Your task to perform on an android device: turn off location Image 0: 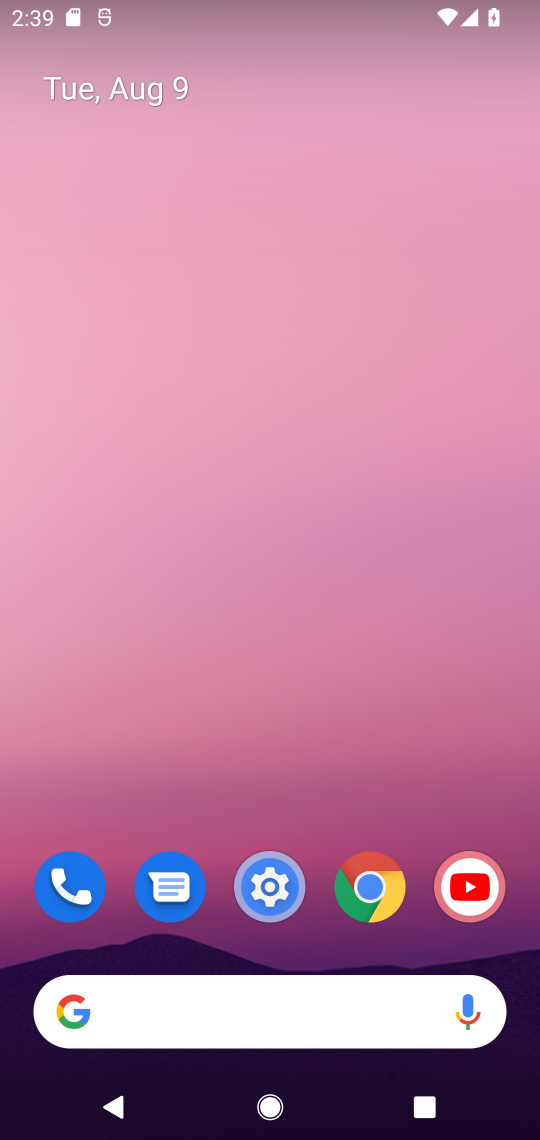
Step 0: drag from (282, 972) to (356, 138)
Your task to perform on an android device: turn off location Image 1: 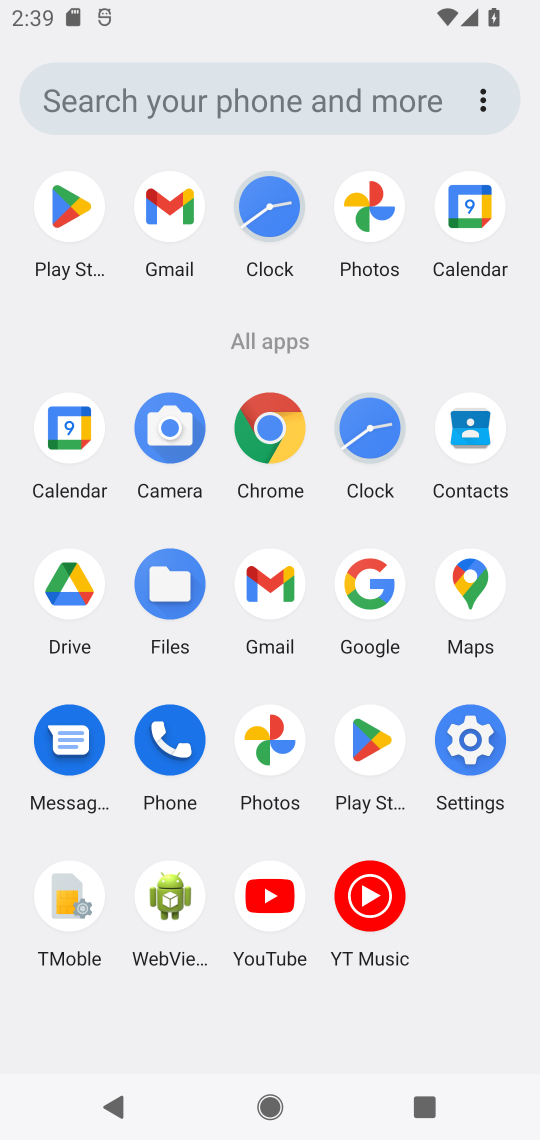
Step 1: click (477, 760)
Your task to perform on an android device: turn off location Image 2: 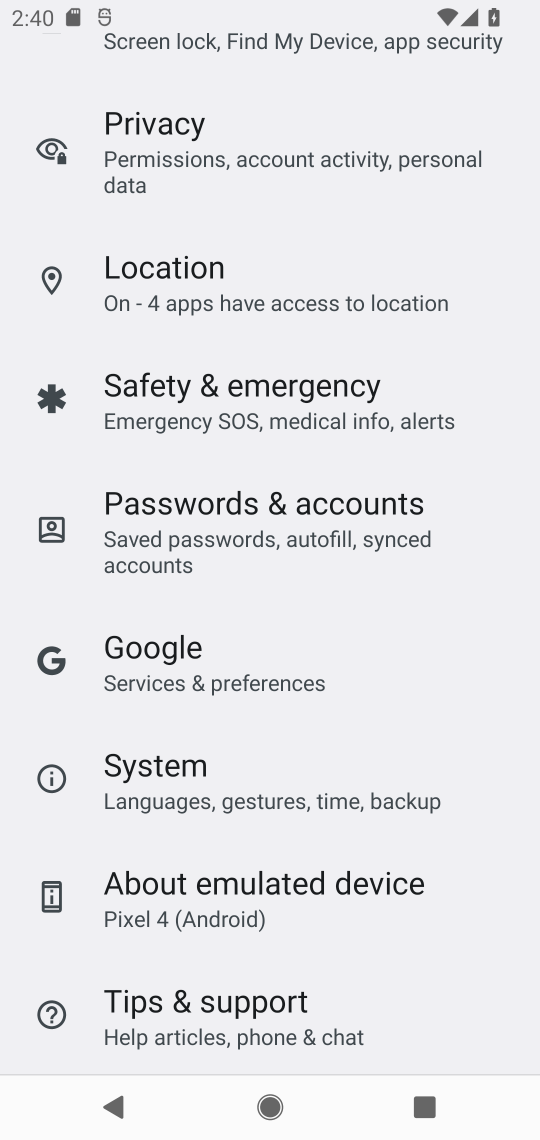
Step 2: drag from (283, 250) to (283, 553)
Your task to perform on an android device: turn off location Image 3: 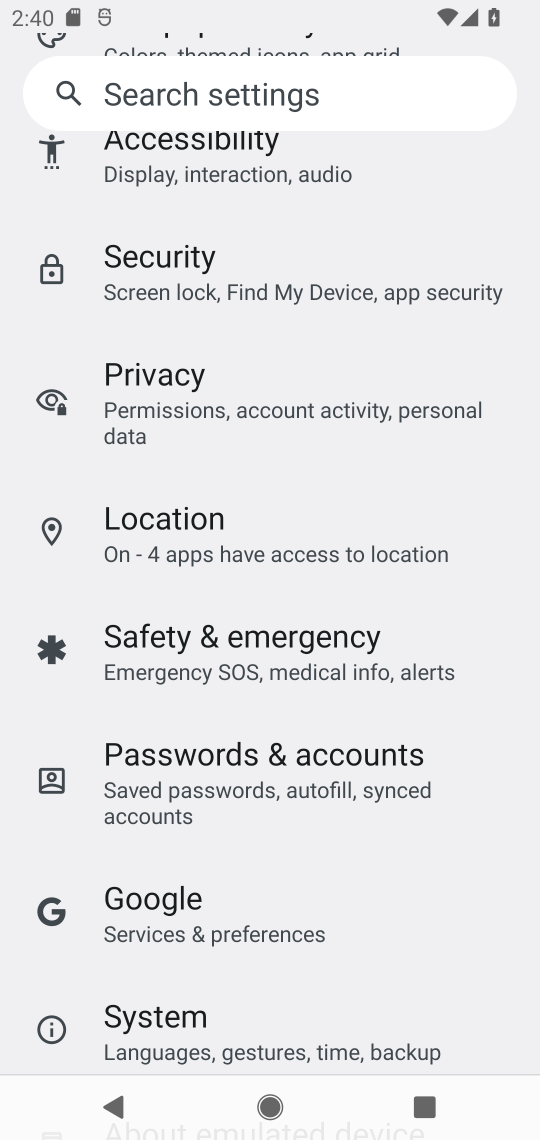
Step 3: click (270, 547)
Your task to perform on an android device: turn off location Image 4: 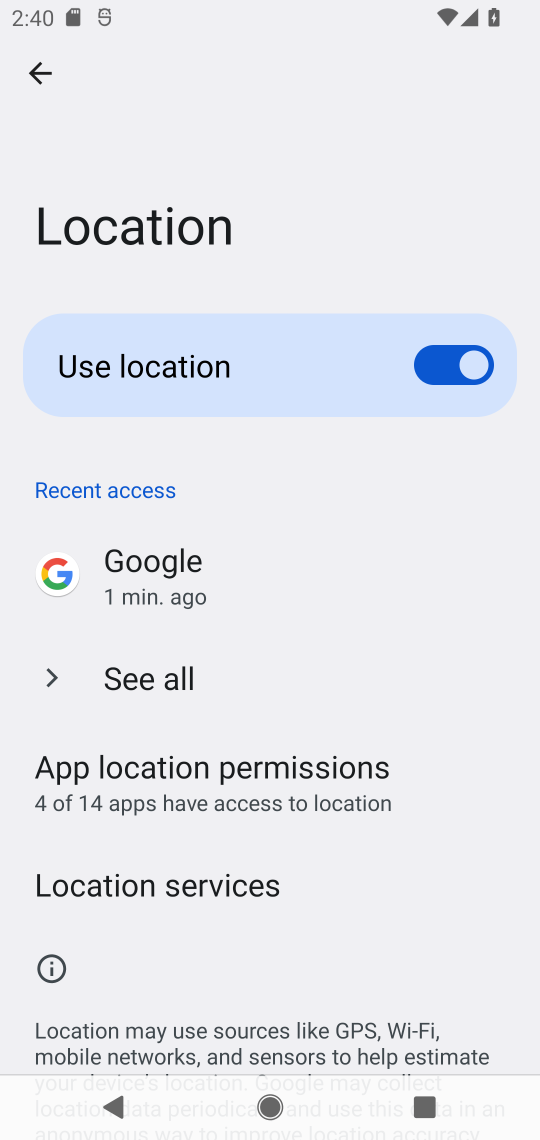
Step 4: click (429, 360)
Your task to perform on an android device: turn off location Image 5: 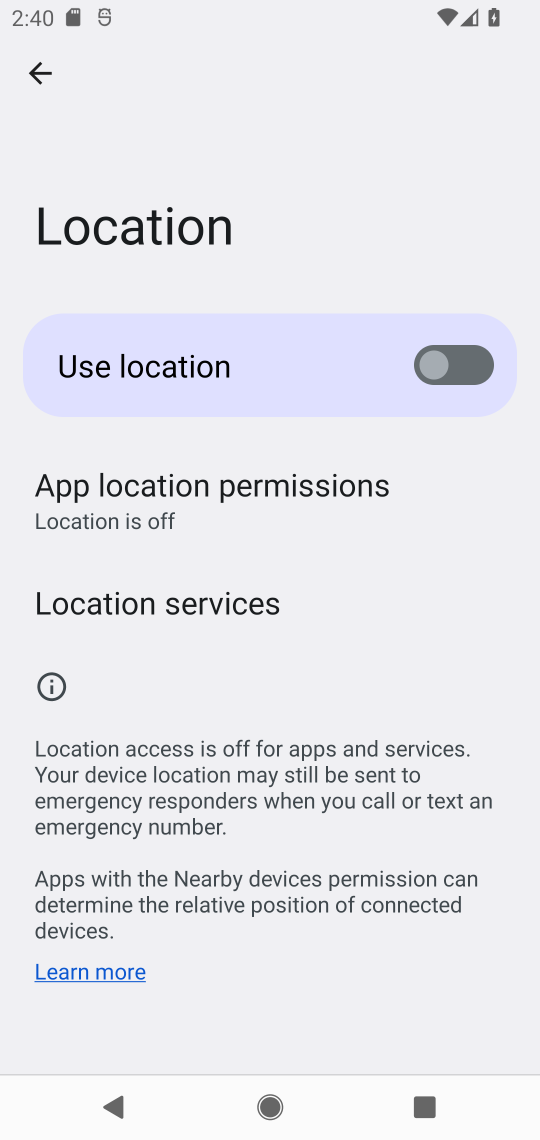
Step 5: task complete